Your task to perform on an android device: delete the emails in spam in the gmail app Image 0: 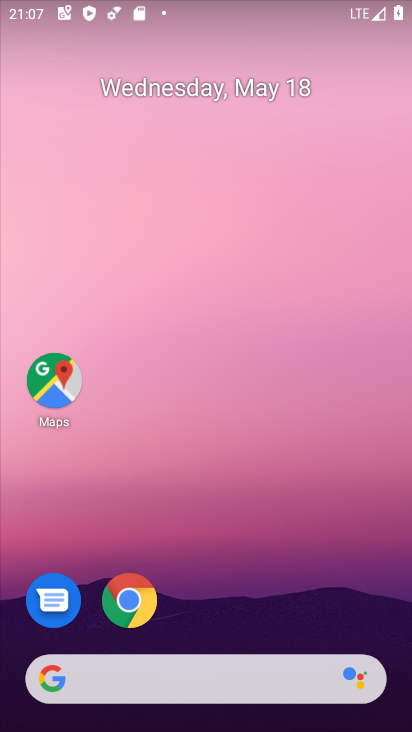
Step 0: drag from (261, 520) to (318, 157)
Your task to perform on an android device: delete the emails in spam in the gmail app Image 1: 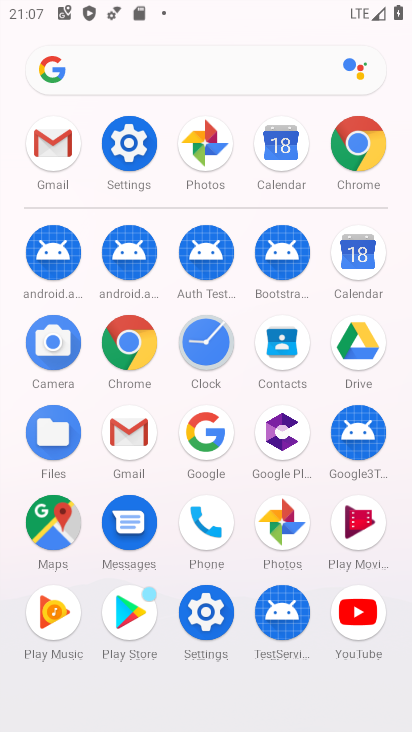
Step 1: click (137, 433)
Your task to perform on an android device: delete the emails in spam in the gmail app Image 2: 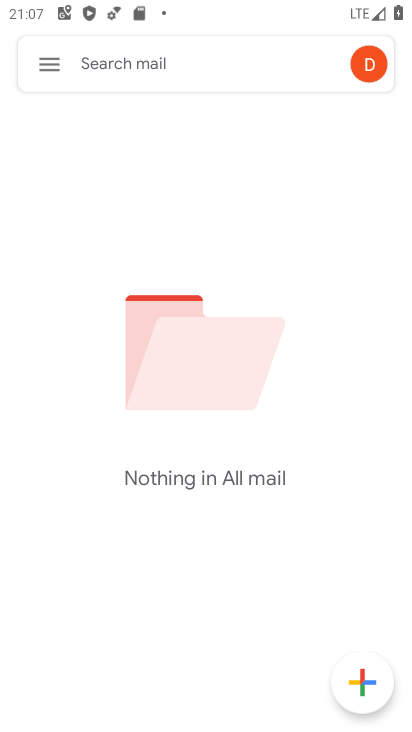
Step 2: click (45, 57)
Your task to perform on an android device: delete the emails in spam in the gmail app Image 3: 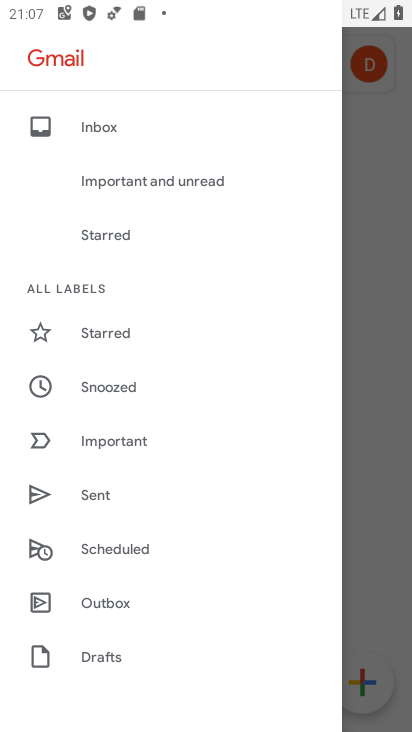
Step 3: drag from (126, 629) to (203, 198)
Your task to perform on an android device: delete the emails in spam in the gmail app Image 4: 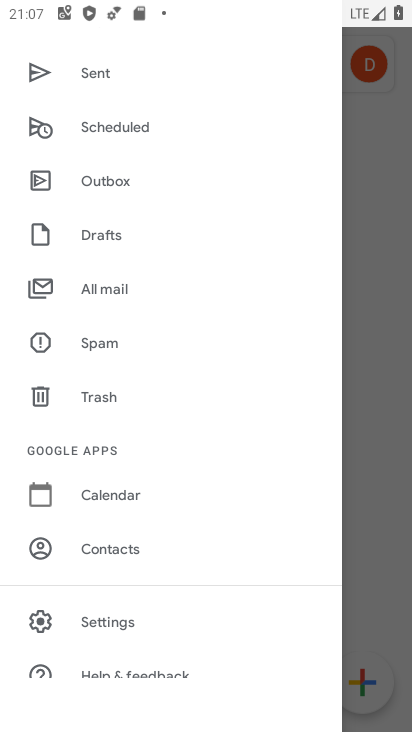
Step 4: click (114, 351)
Your task to perform on an android device: delete the emails in spam in the gmail app Image 5: 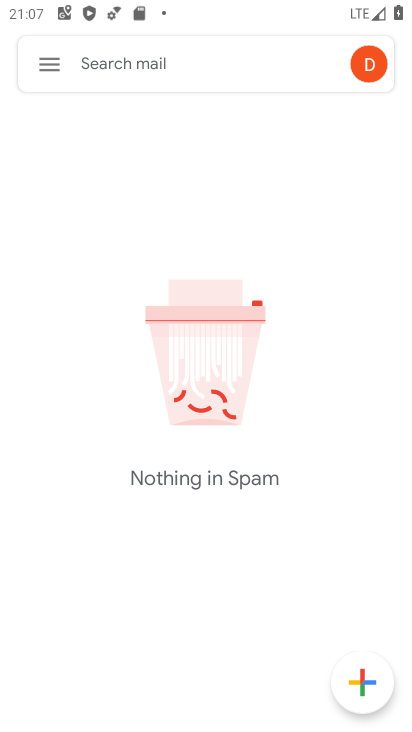
Step 5: task complete